Your task to perform on an android device: change the clock display to show seconds Image 0: 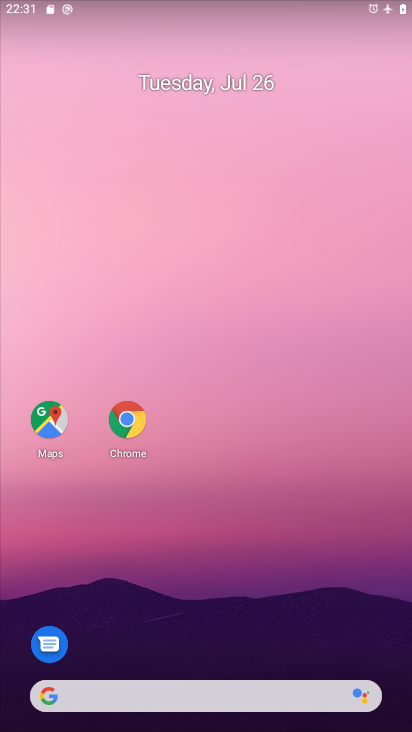
Step 0: drag from (267, 630) to (313, 191)
Your task to perform on an android device: change the clock display to show seconds Image 1: 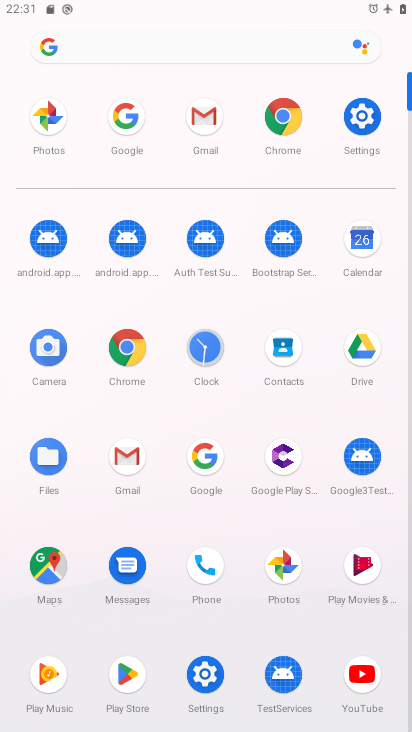
Step 1: click (206, 344)
Your task to perform on an android device: change the clock display to show seconds Image 2: 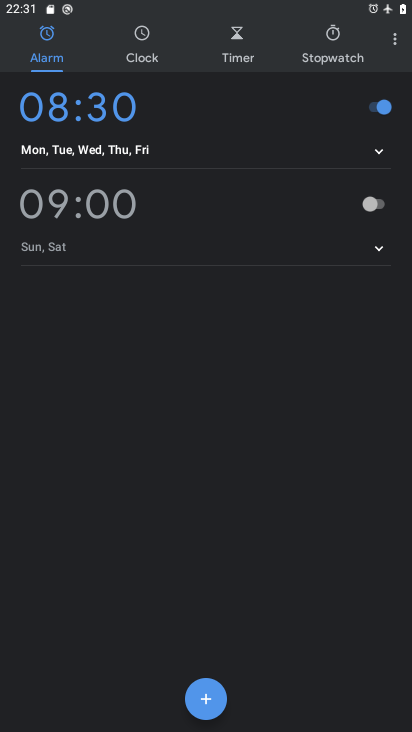
Step 2: click (401, 38)
Your task to perform on an android device: change the clock display to show seconds Image 3: 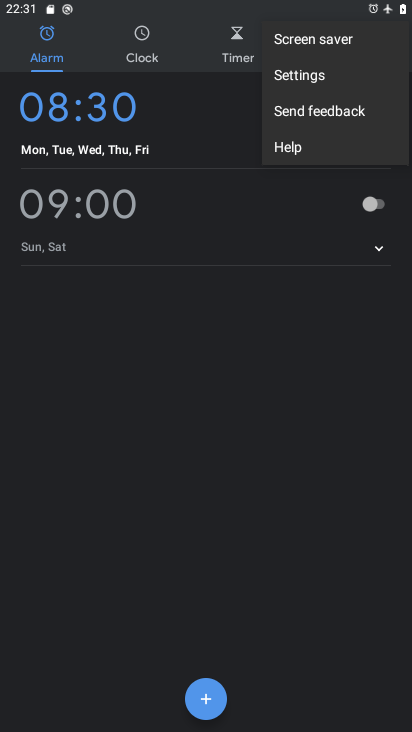
Step 3: click (316, 82)
Your task to perform on an android device: change the clock display to show seconds Image 4: 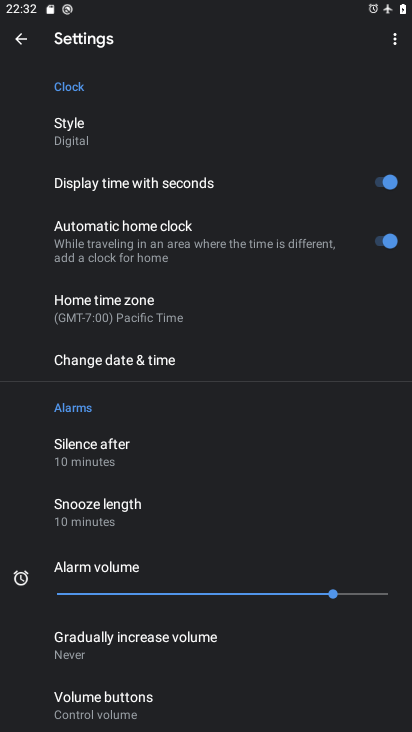
Step 4: task complete